Your task to perform on an android device: toggle location history Image 0: 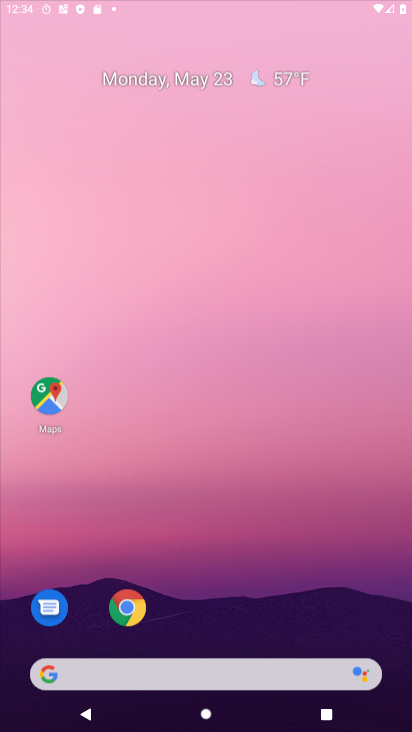
Step 0: click (326, 112)
Your task to perform on an android device: toggle location history Image 1: 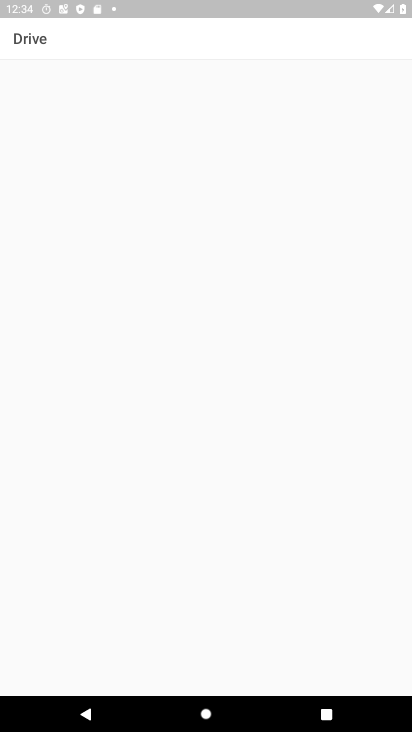
Step 1: press home button
Your task to perform on an android device: toggle location history Image 2: 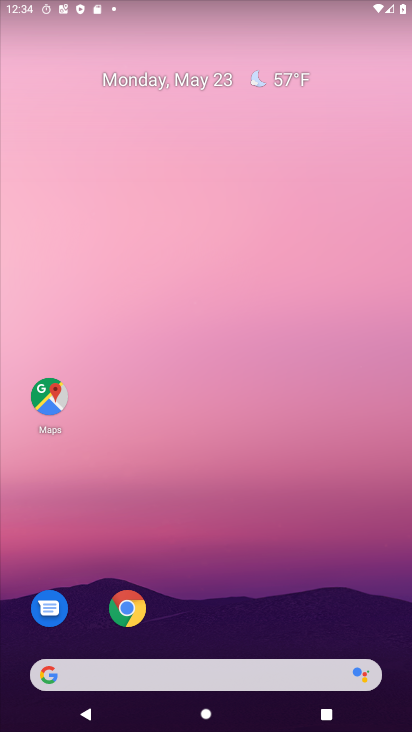
Step 2: drag from (380, 571) to (400, 146)
Your task to perform on an android device: toggle location history Image 3: 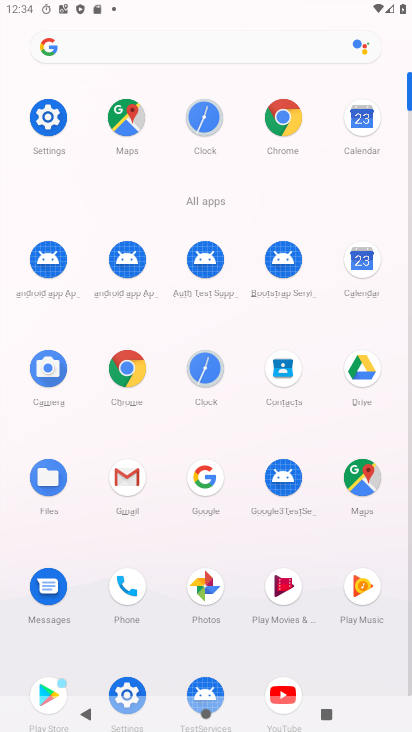
Step 3: click (135, 685)
Your task to perform on an android device: toggle location history Image 4: 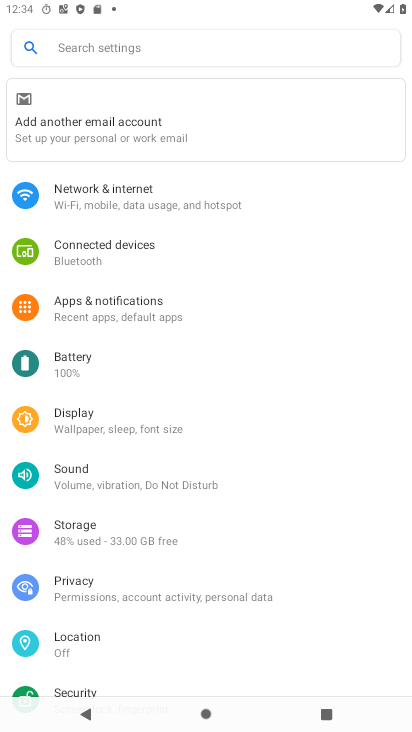
Step 4: click (89, 655)
Your task to perform on an android device: toggle location history Image 5: 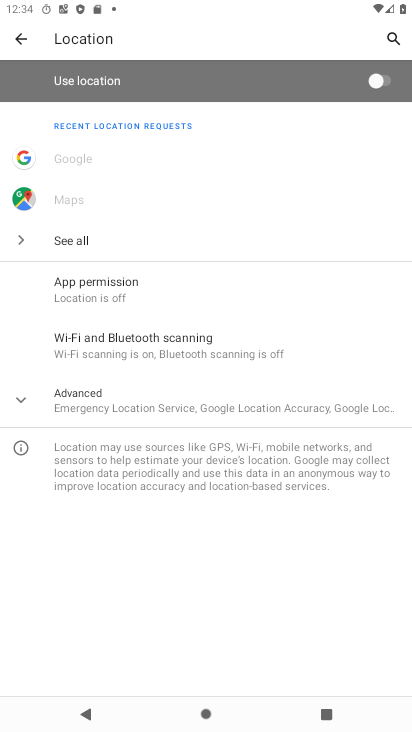
Step 5: click (113, 405)
Your task to perform on an android device: toggle location history Image 6: 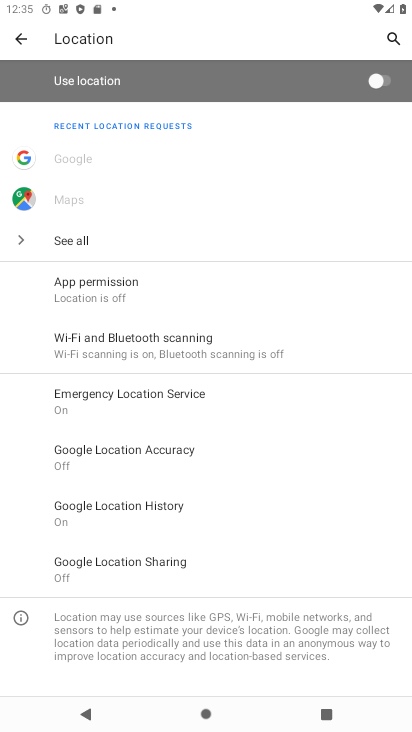
Step 6: click (120, 506)
Your task to perform on an android device: toggle location history Image 7: 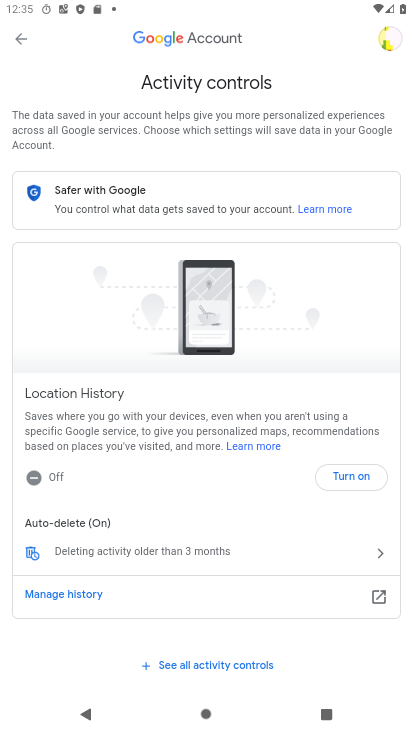
Step 7: click (348, 469)
Your task to perform on an android device: toggle location history Image 8: 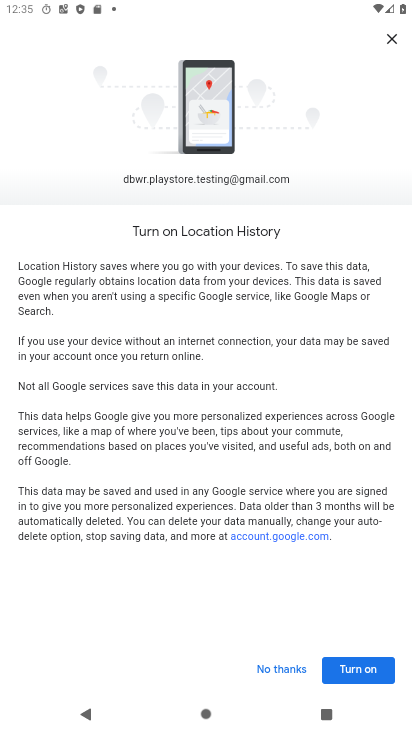
Step 8: click (340, 670)
Your task to perform on an android device: toggle location history Image 9: 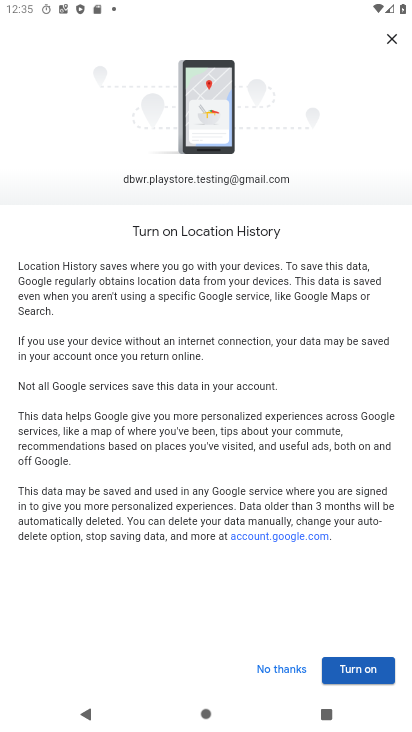
Step 9: click (349, 673)
Your task to perform on an android device: toggle location history Image 10: 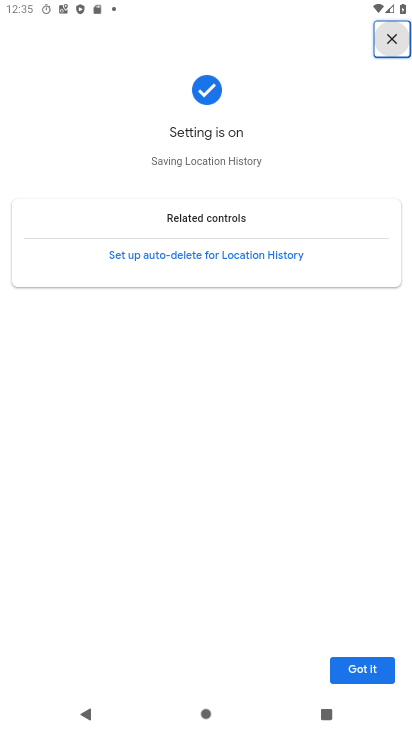
Step 10: click (343, 678)
Your task to perform on an android device: toggle location history Image 11: 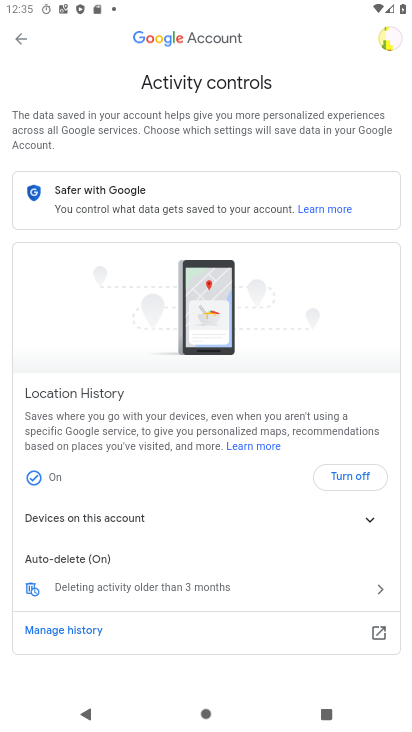
Step 11: task complete